Your task to perform on an android device: Turn off the flashlight Image 0: 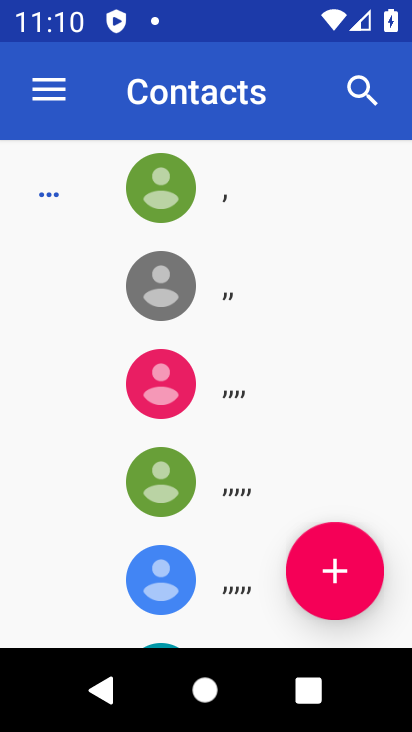
Step 0: press home button
Your task to perform on an android device: Turn off the flashlight Image 1: 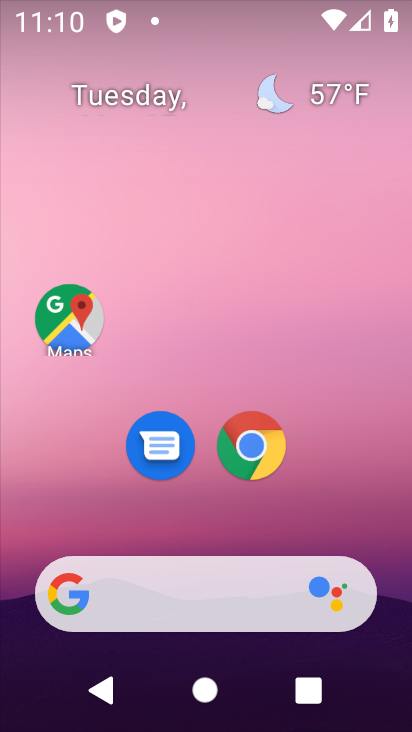
Step 1: drag from (247, 1) to (254, 388)
Your task to perform on an android device: Turn off the flashlight Image 2: 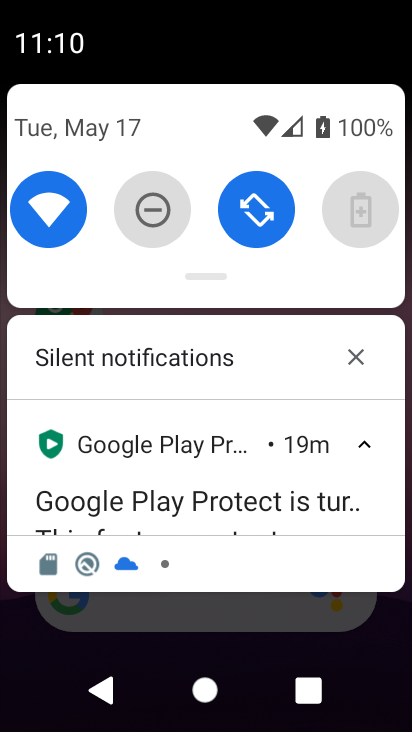
Step 2: drag from (204, 116) to (192, 419)
Your task to perform on an android device: Turn off the flashlight Image 3: 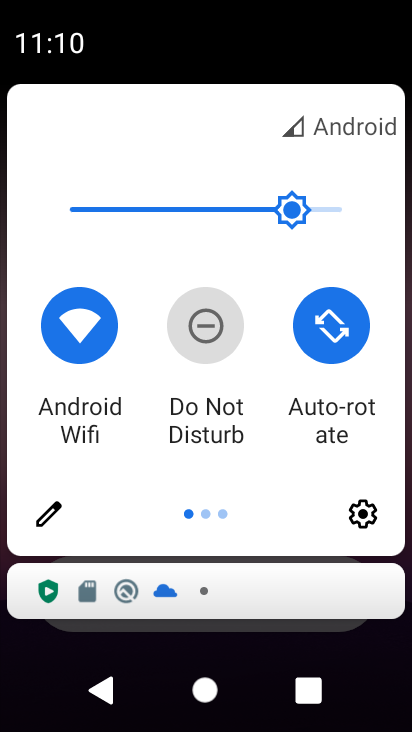
Step 3: click (41, 521)
Your task to perform on an android device: Turn off the flashlight Image 4: 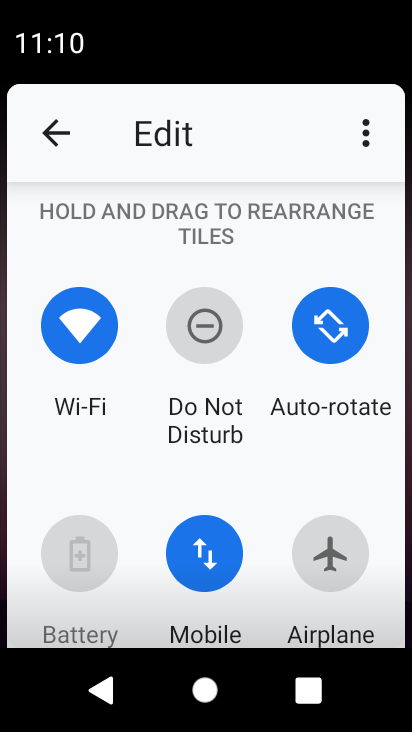
Step 4: task complete